Your task to perform on an android device: turn off location Image 0: 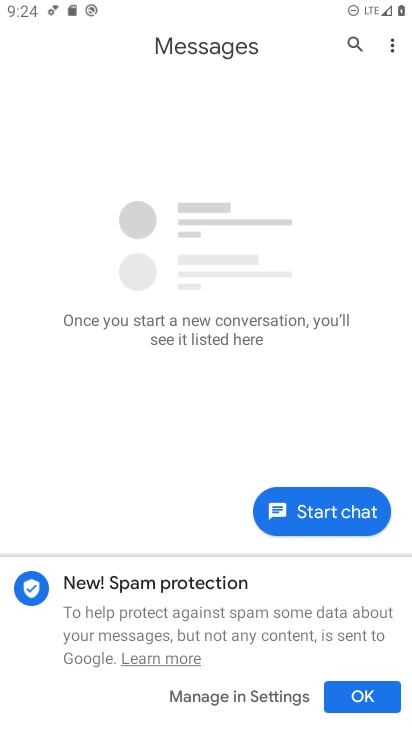
Step 0: press home button
Your task to perform on an android device: turn off location Image 1: 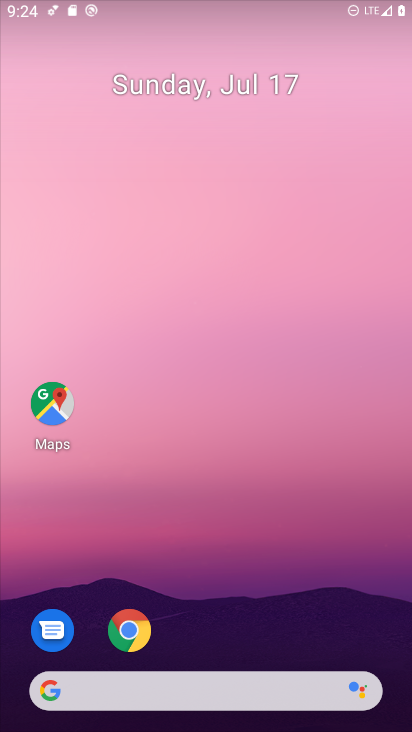
Step 1: drag from (134, 610) to (188, 207)
Your task to perform on an android device: turn off location Image 2: 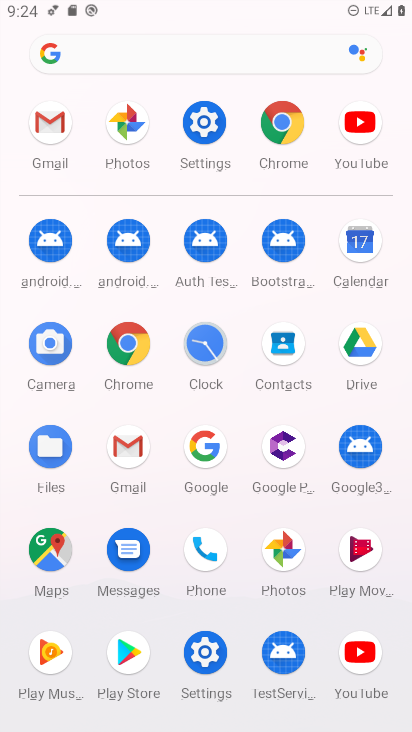
Step 2: click (195, 128)
Your task to perform on an android device: turn off location Image 3: 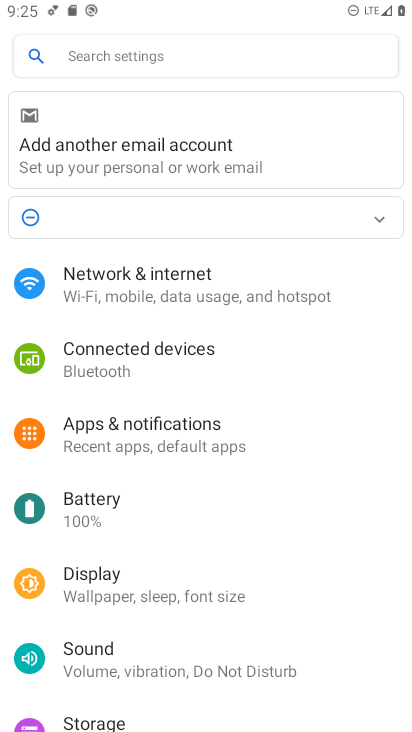
Step 3: drag from (130, 626) to (148, 177)
Your task to perform on an android device: turn off location Image 4: 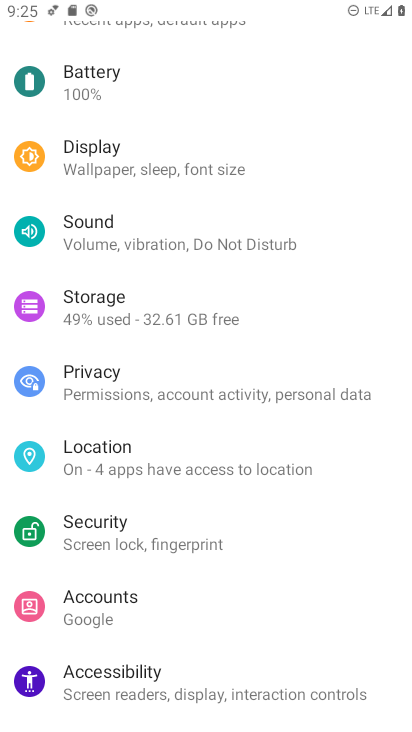
Step 4: click (127, 442)
Your task to perform on an android device: turn off location Image 5: 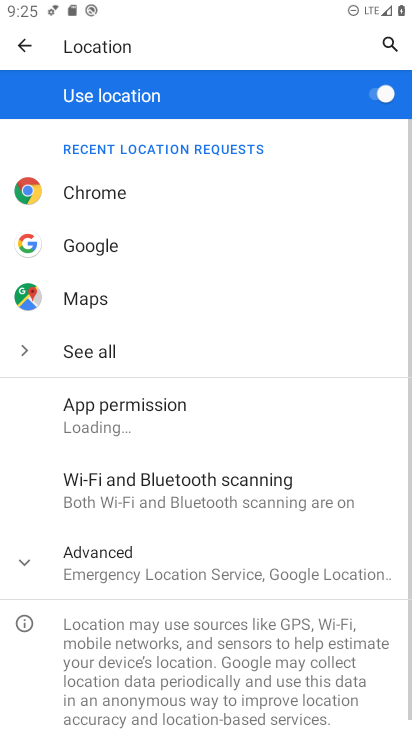
Step 5: click (383, 92)
Your task to perform on an android device: turn off location Image 6: 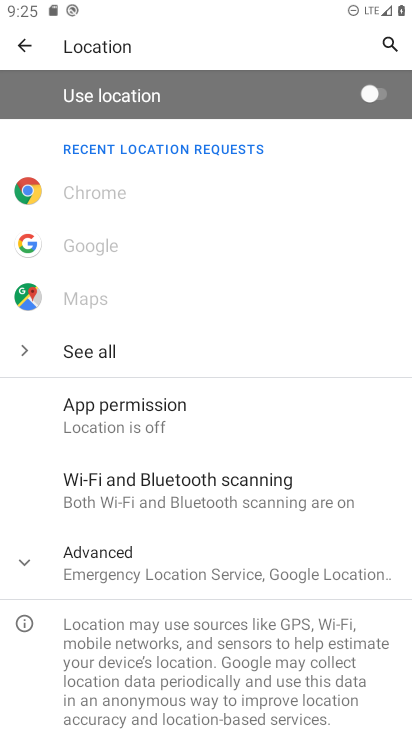
Step 6: task complete